Your task to perform on an android device: create a new album in the google photos Image 0: 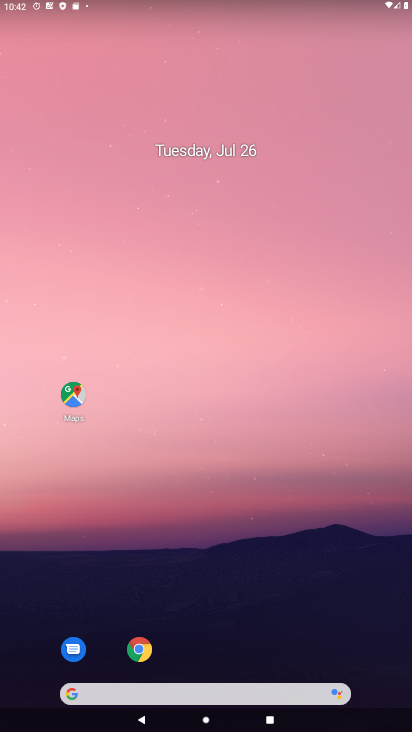
Step 0: drag from (189, 639) to (235, 101)
Your task to perform on an android device: create a new album in the google photos Image 1: 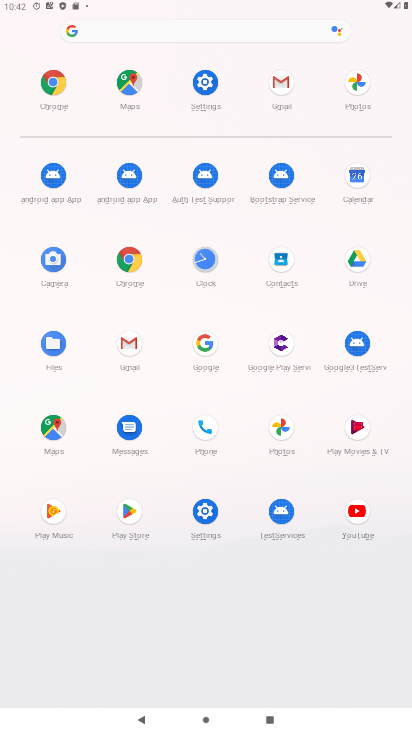
Step 1: click (284, 420)
Your task to perform on an android device: create a new album in the google photos Image 2: 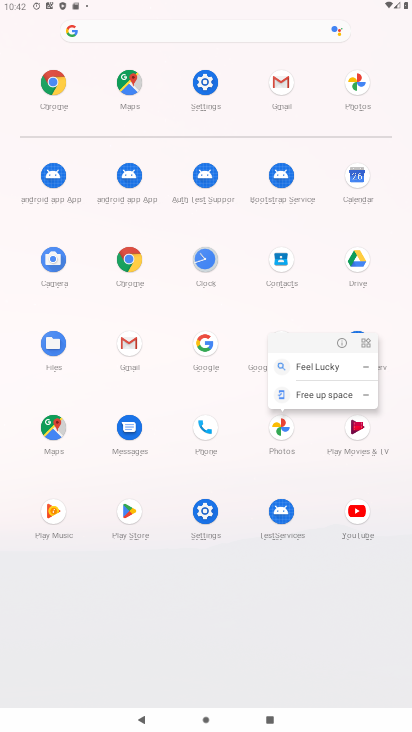
Step 2: click (340, 344)
Your task to perform on an android device: create a new album in the google photos Image 3: 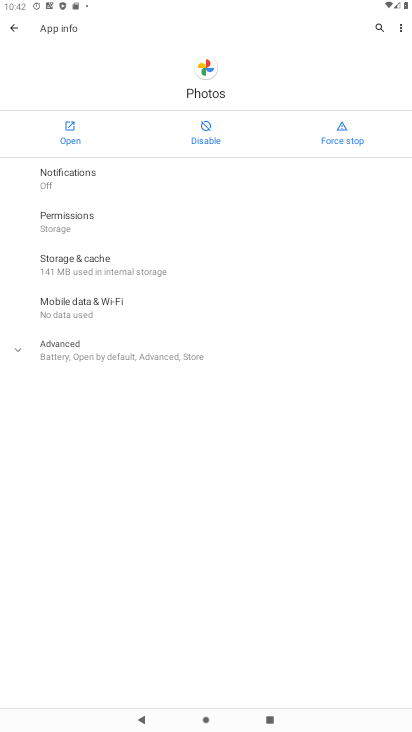
Step 3: click (64, 132)
Your task to perform on an android device: create a new album in the google photos Image 4: 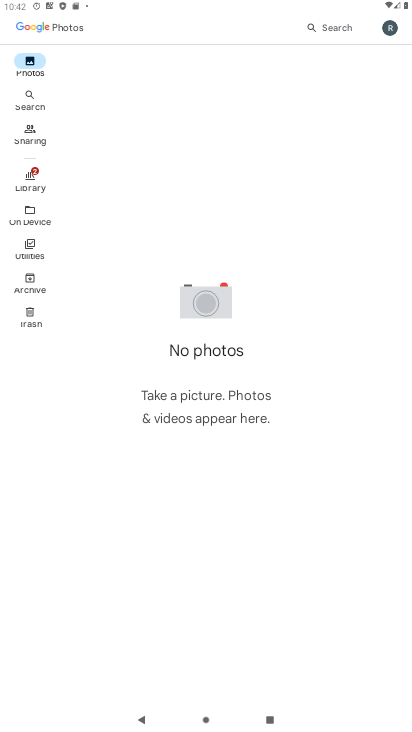
Step 4: click (31, 94)
Your task to perform on an android device: create a new album in the google photos Image 5: 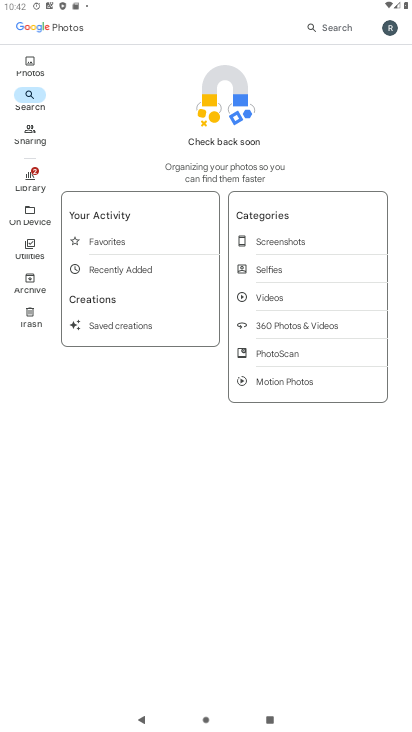
Step 5: click (39, 139)
Your task to perform on an android device: create a new album in the google photos Image 6: 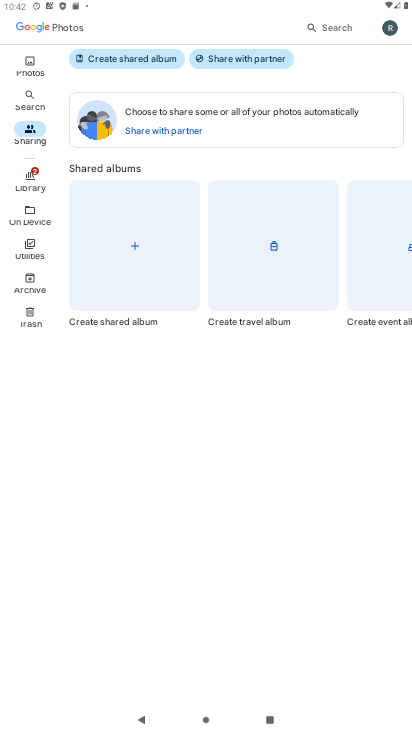
Step 6: click (139, 247)
Your task to perform on an android device: create a new album in the google photos Image 7: 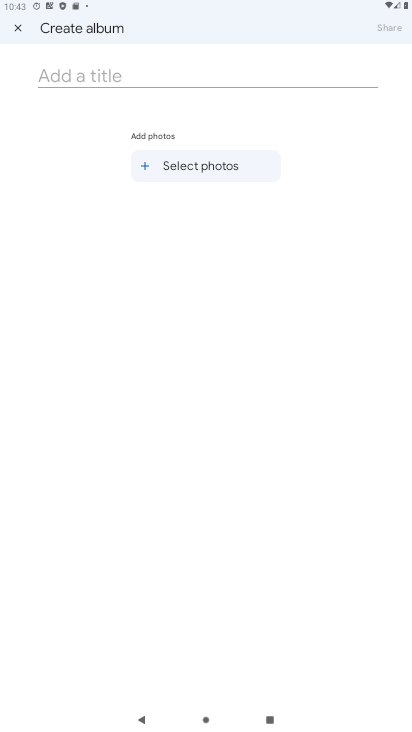
Step 7: drag from (202, 661) to (227, 307)
Your task to perform on an android device: create a new album in the google photos Image 8: 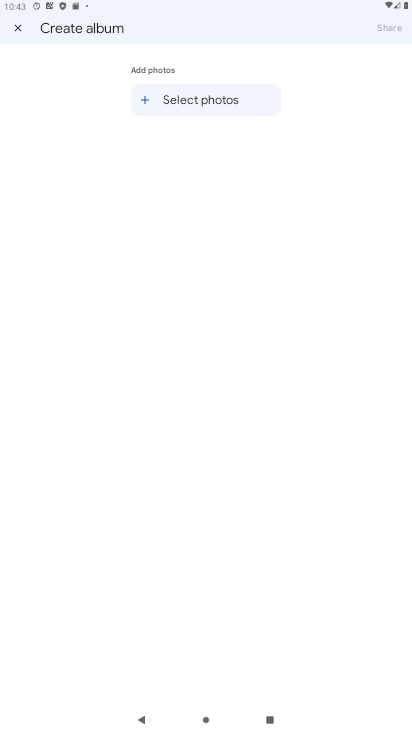
Step 8: drag from (111, 130) to (179, 672)
Your task to perform on an android device: create a new album in the google photos Image 9: 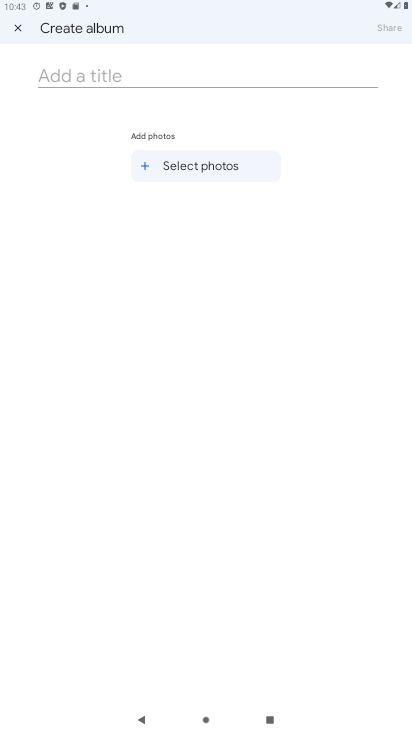
Step 9: click (83, 77)
Your task to perform on an android device: create a new album in the google photos Image 10: 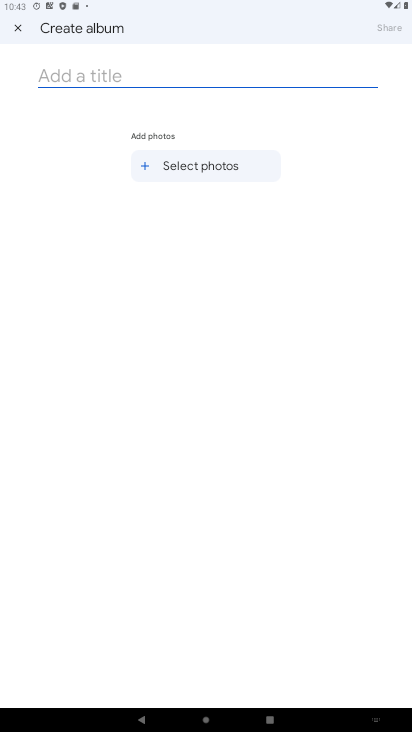
Step 10: type ",makskal"
Your task to perform on an android device: create a new album in the google photos Image 11: 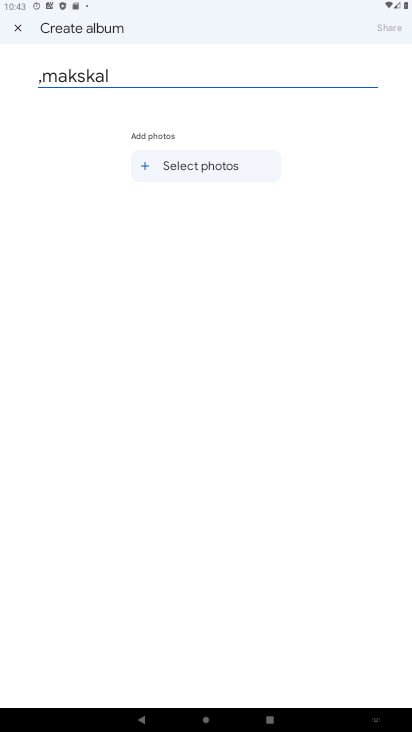
Step 11: click (153, 167)
Your task to perform on an android device: create a new album in the google photos Image 12: 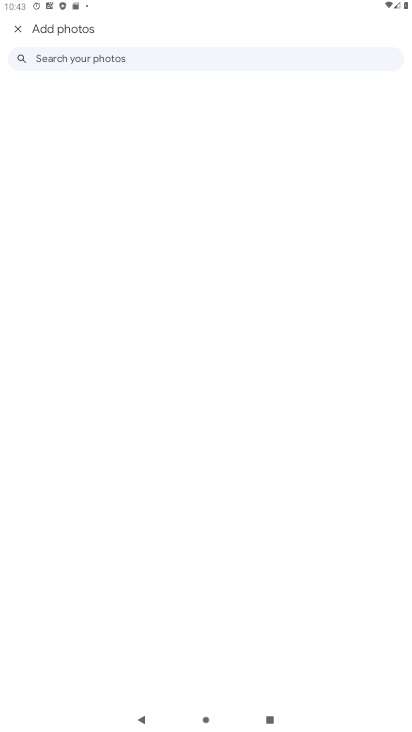
Step 12: drag from (174, 498) to (209, 223)
Your task to perform on an android device: create a new album in the google photos Image 13: 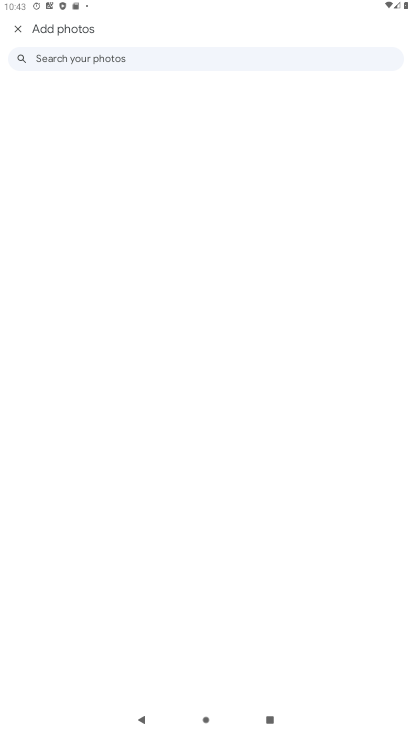
Step 13: drag from (229, 289) to (250, 118)
Your task to perform on an android device: create a new album in the google photos Image 14: 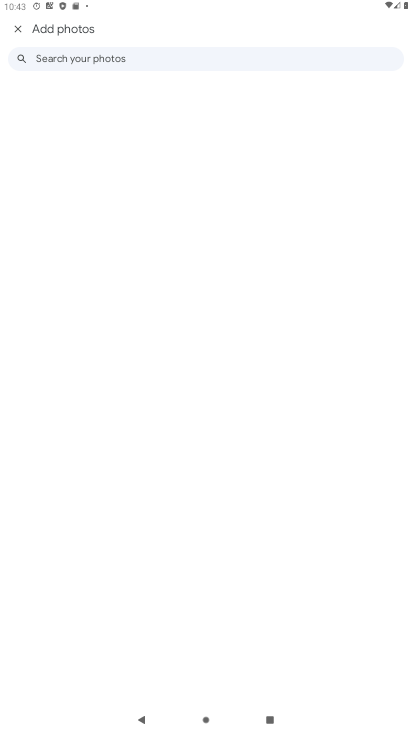
Step 14: drag from (151, 333) to (191, 179)
Your task to perform on an android device: create a new album in the google photos Image 15: 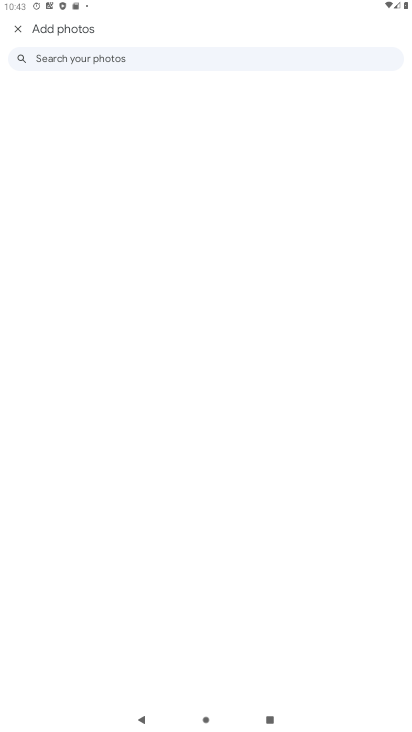
Step 15: click (202, 99)
Your task to perform on an android device: create a new album in the google photos Image 16: 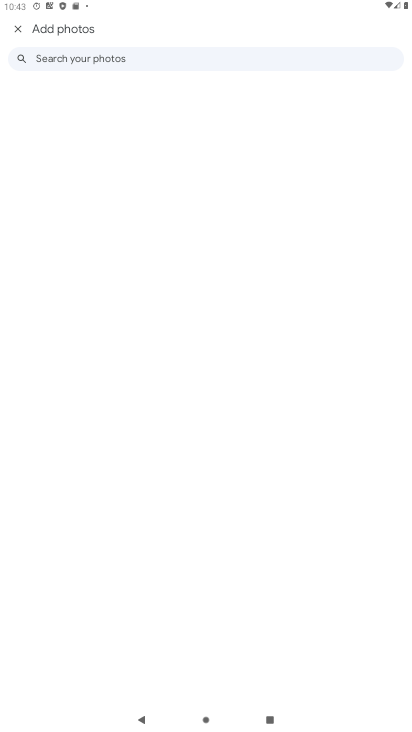
Step 16: drag from (185, 357) to (211, 120)
Your task to perform on an android device: create a new album in the google photos Image 17: 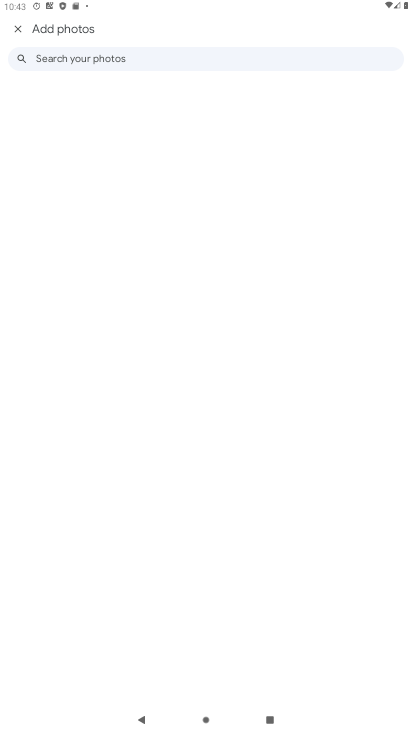
Step 17: click (114, 120)
Your task to perform on an android device: create a new album in the google photos Image 18: 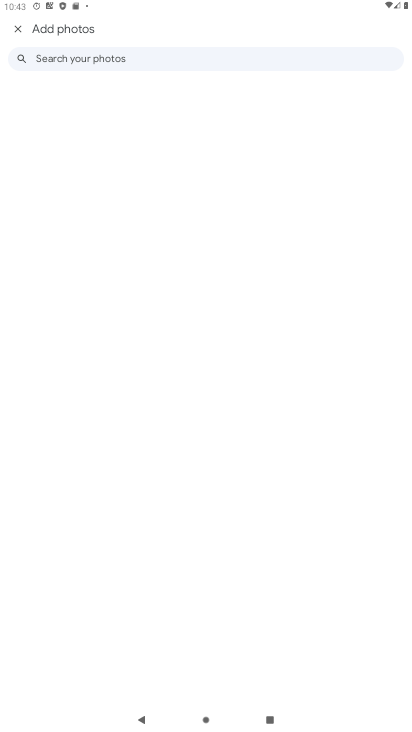
Step 18: task complete